Your task to perform on an android device: Open CNN.com Image 0: 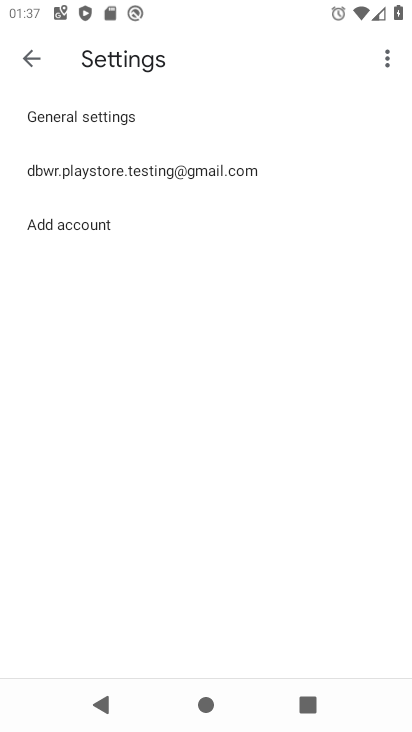
Step 0: press home button
Your task to perform on an android device: Open CNN.com Image 1: 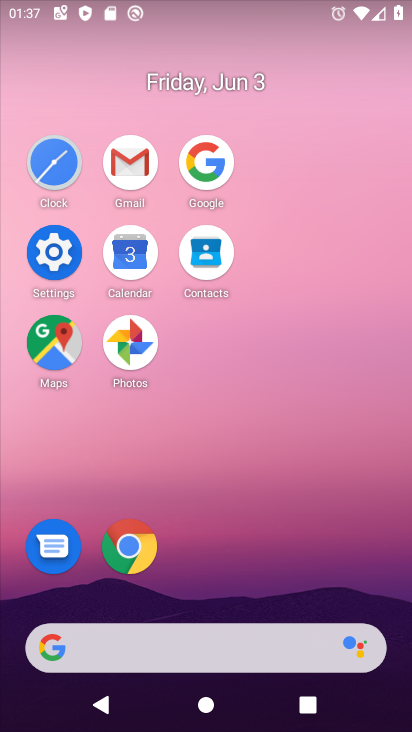
Step 1: click (206, 154)
Your task to perform on an android device: Open CNN.com Image 2: 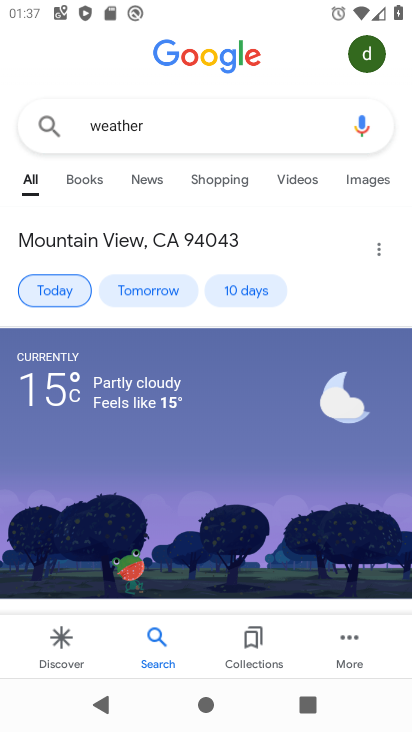
Step 2: click (245, 127)
Your task to perform on an android device: Open CNN.com Image 3: 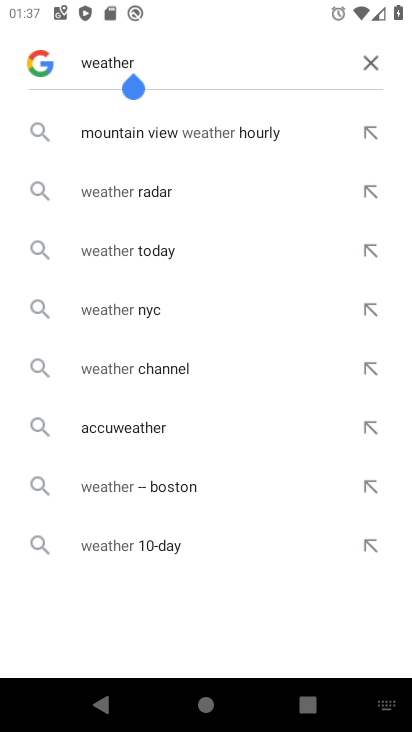
Step 3: click (368, 68)
Your task to perform on an android device: Open CNN.com Image 4: 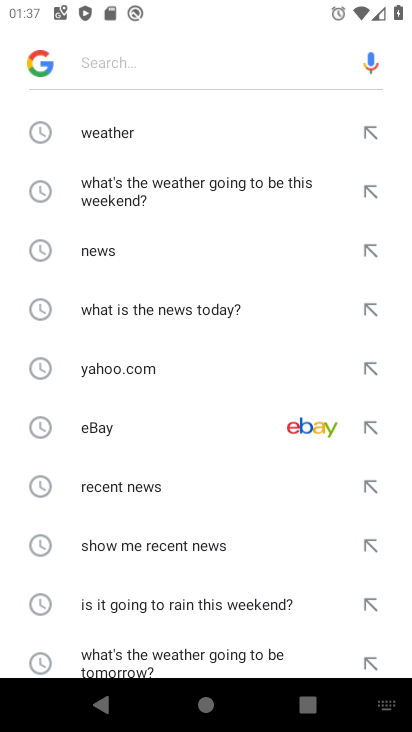
Step 4: drag from (183, 468) to (220, 171)
Your task to perform on an android device: Open CNN.com Image 5: 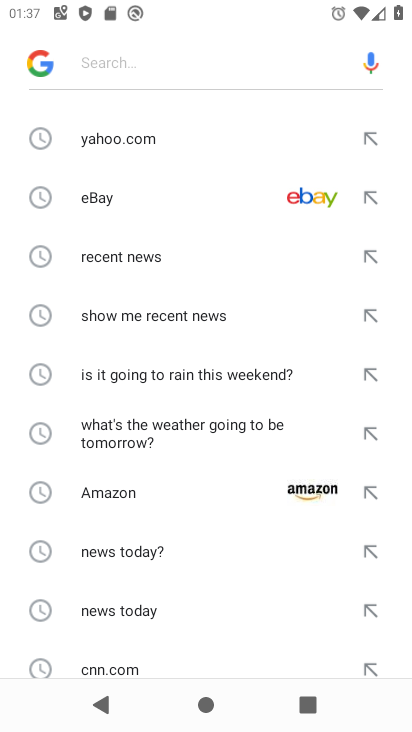
Step 5: drag from (184, 474) to (207, 167)
Your task to perform on an android device: Open CNN.com Image 6: 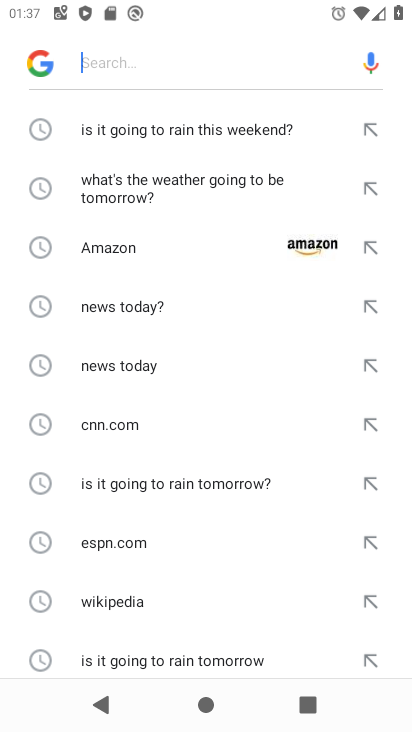
Step 6: click (159, 436)
Your task to perform on an android device: Open CNN.com Image 7: 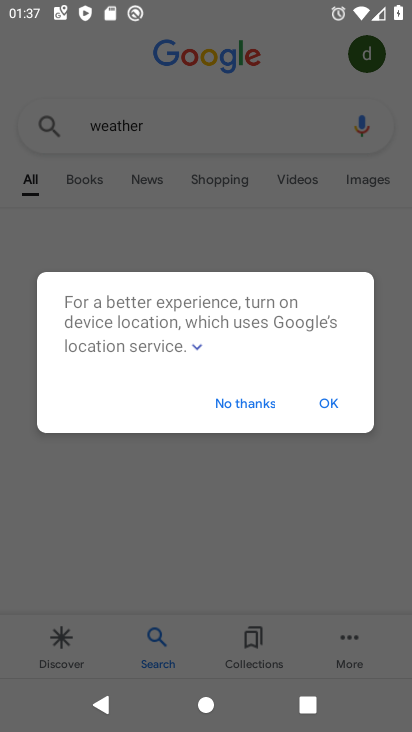
Step 7: click (323, 404)
Your task to perform on an android device: Open CNN.com Image 8: 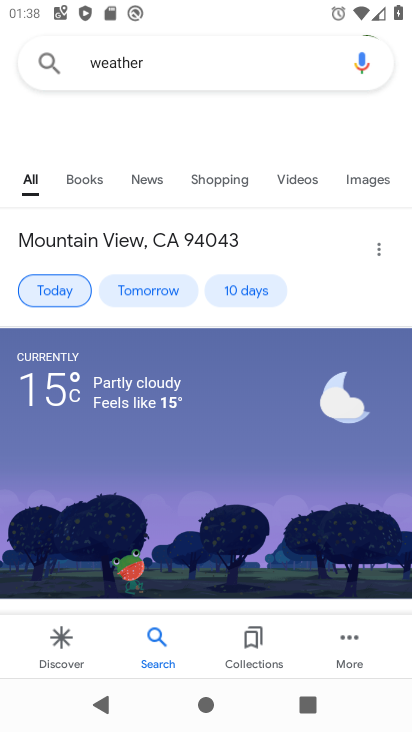
Step 8: click (214, 67)
Your task to perform on an android device: Open CNN.com Image 9: 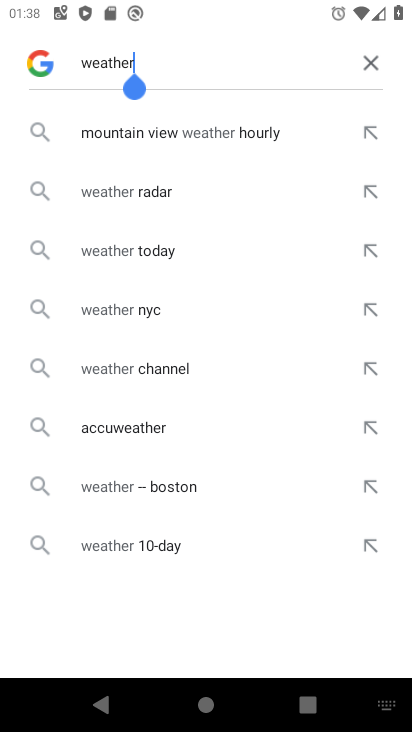
Step 9: click (372, 59)
Your task to perform on an android device: Open CNN.com Image 10: 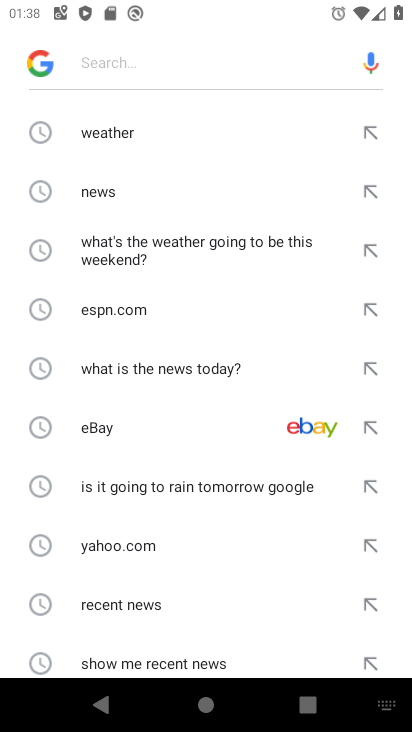
Step 10: drag from (160, 571) to (208, 241)
Your task to perform on an android device: Open CNN.com Image 11: 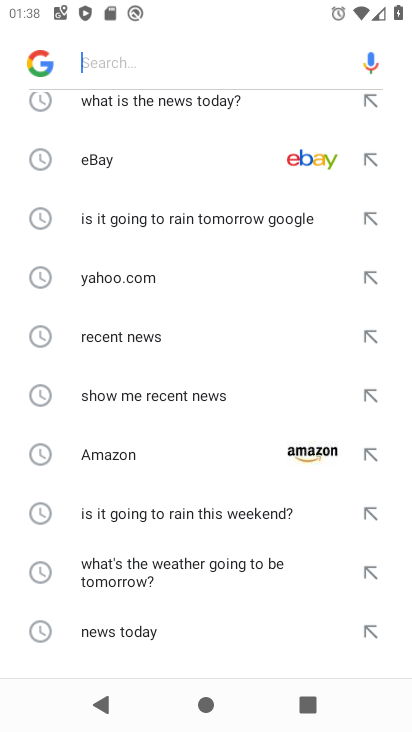
Step 11: drag from (176, 573) to (226, 199)
Your task to perform on an android device: Open CNN.com Image 12: 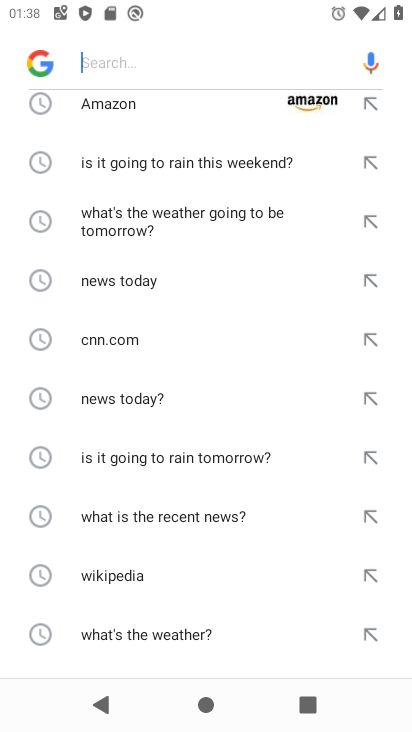
Step 12: click (145, 347)
Your task to perform on an android device: Open CNN.com Image 13: 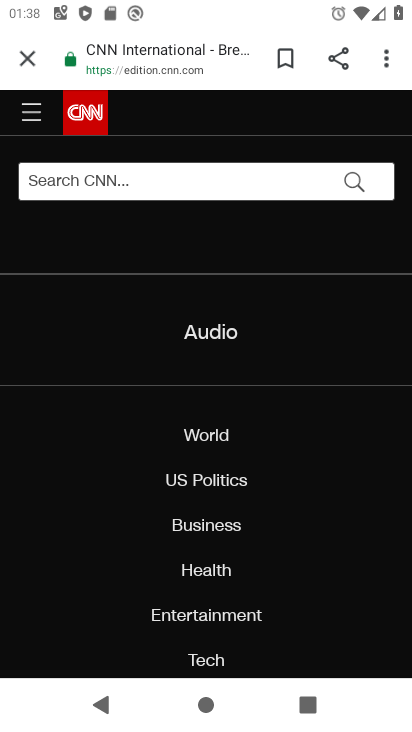
Step 13: task complete